Your task to perform on an android device: Open wifi settings Image 0: 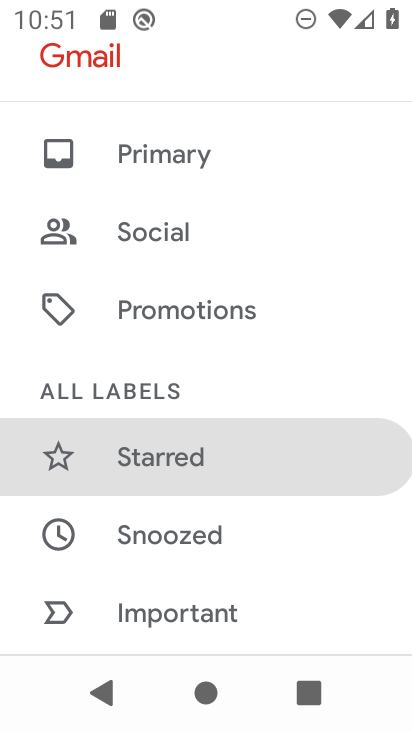
Step 0: press home button
Your task to perform on an android device: Open wifi settings Image 1: 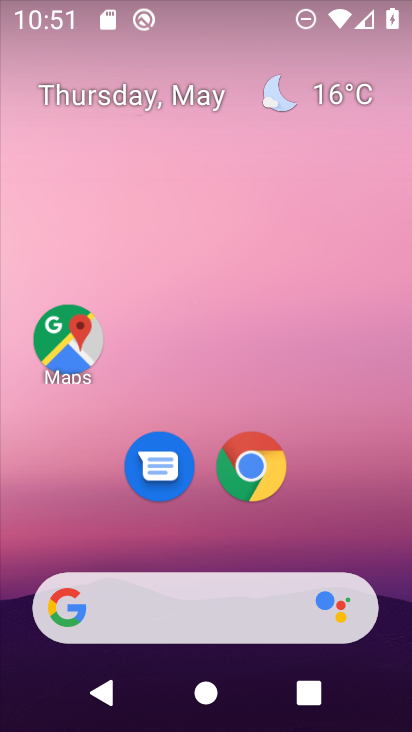
Step 1: drag from (258, 531) to (241, 87)
Your task to perform on an android device: Open wifi settings Image 2: 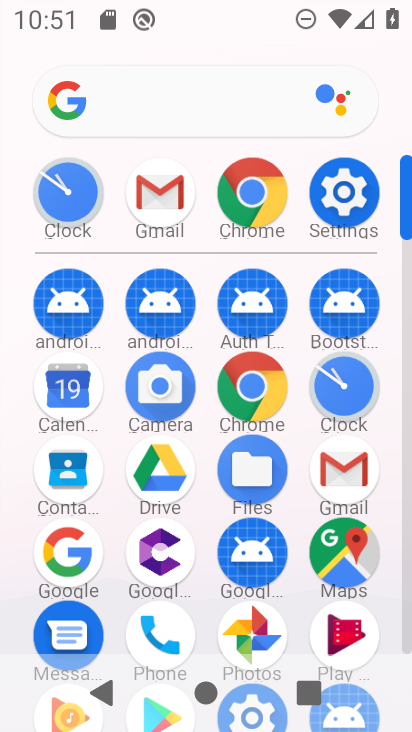
Step 2: click (336, 172)
Your task to perform on an android device: Open wifi settings Image 3: 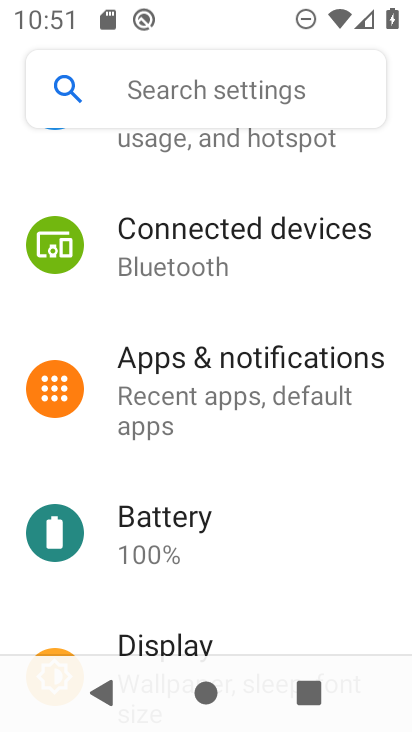
Step 3: drag from (197, 212) to (239, 611)
Your task to perform on an android device: Open wifi settings Image 4: 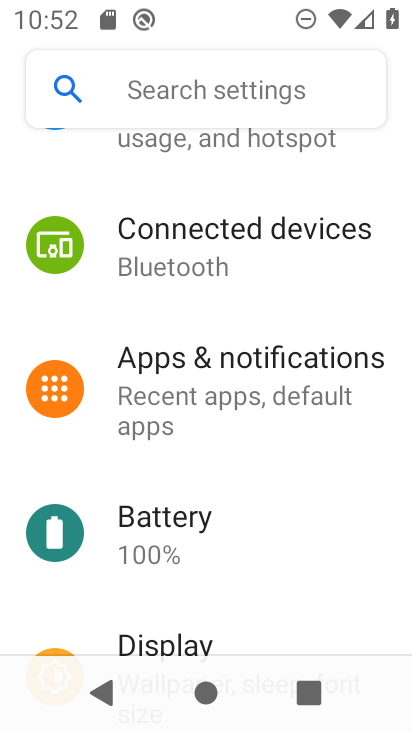
Step 4: drag from (249, 178) to (239, 547)
Your task to perform on an android device: Open wifi settings Image 5: 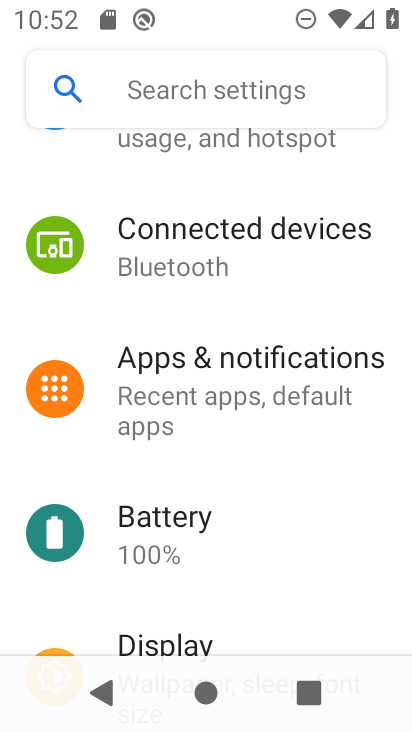
Step 5: click (134, 158)
Your task to perform on an android device: Open wifi settings Image 6: 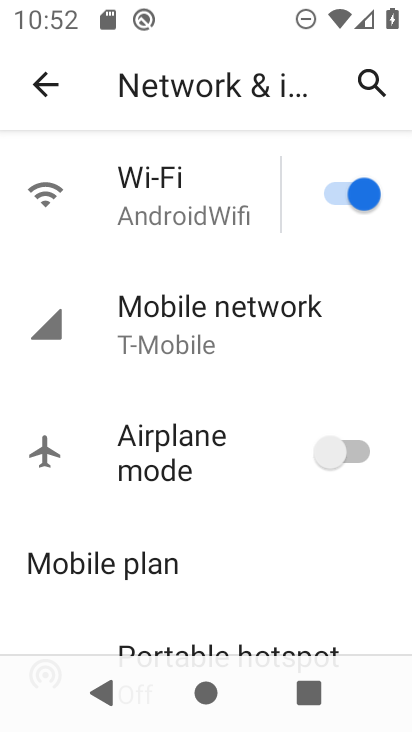
Step 6: task complete